Your task to perform on an android device: Open Google Maps and go to "Timeline" Image 0: 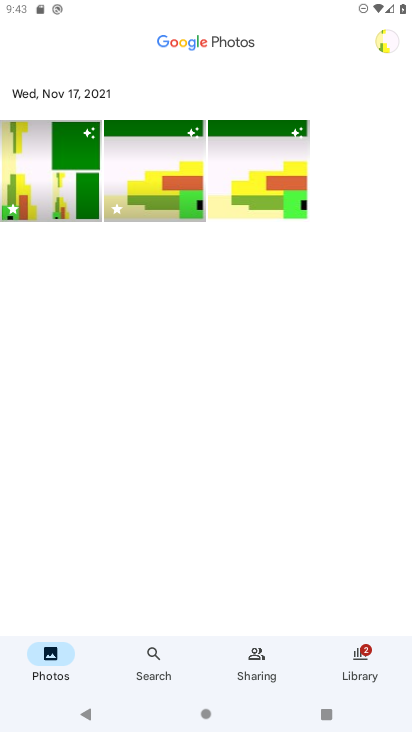
Step 0: press home button
Your task to perform on an android device: Open Google Maps and go to "Timeline" Image 1: 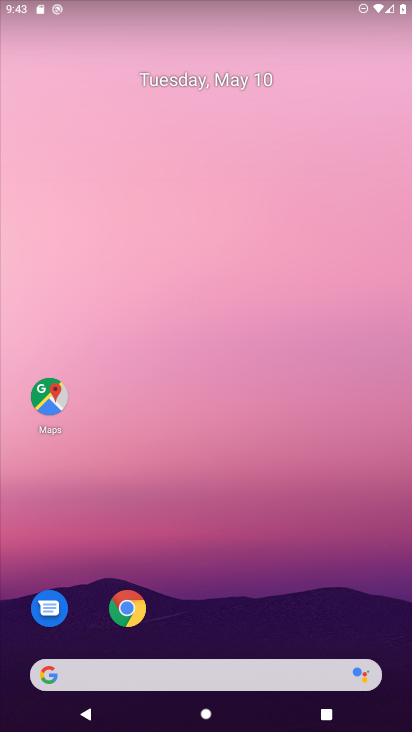
Step 1: drag from (333, 617) to (291, 72)
Your task to perform on an android device: Open Google Maps and go to "Timeline" Image 2: 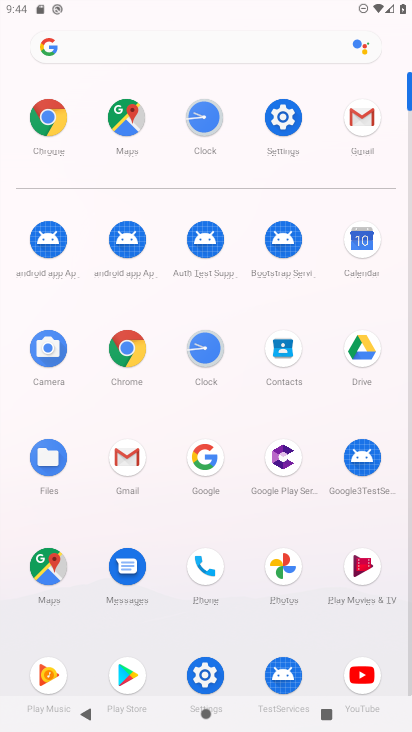
Step 2: click (57, 560)
Your task to perform on an android device: Open Google Maps and go to "Timeline" Image 3: 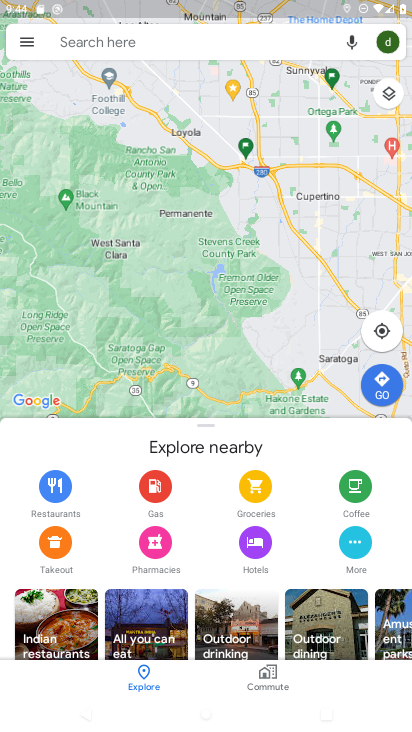
Step 3: click (27, 48)
Your task to perform on an android device: Open Google Maps and go to "Timeline" Image 4: 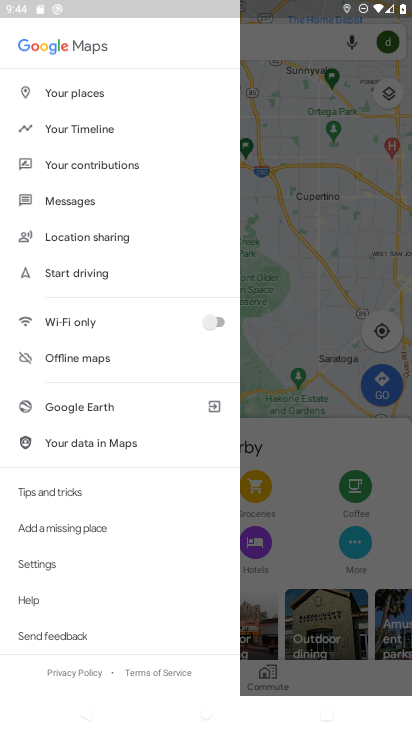
Step 4: click (100, 133)
Your task to perform on an android device: Open Google Maps and go to "Timeline" Image 5: 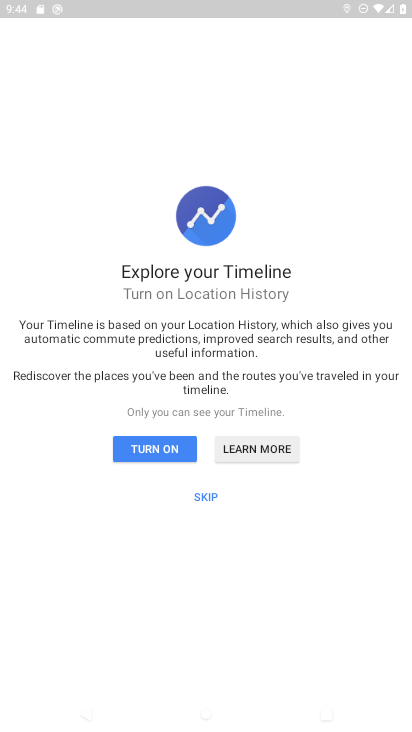
Step 5: task complete